Your task to perform on an android device: see tabs open on other devices in the chrome app Image 0: 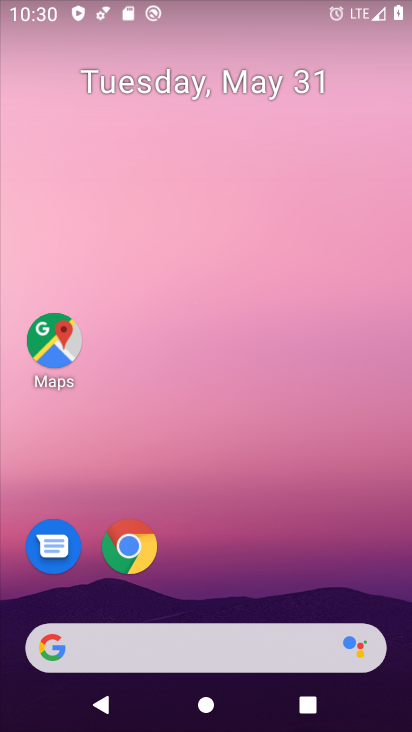
Step 0: drag from (311, 658) to (262, 14)
Your task to perform on an android device: see tabs open on other devices in the chrome app Image 1: 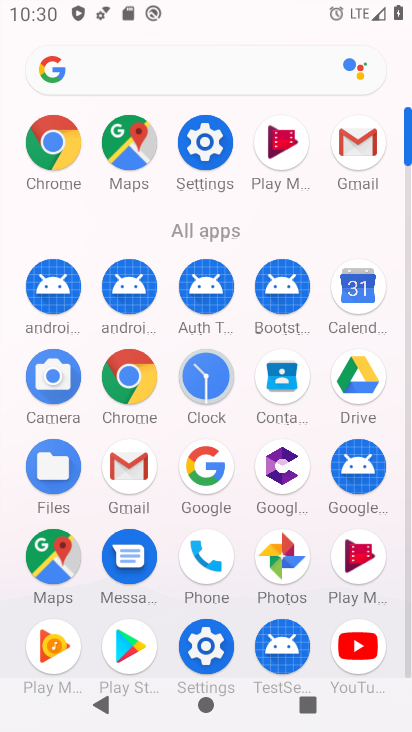
Step 1: click (137, 383)
Your task to perform on an android device: see tabs open on other devices in the chrome app Image 2: 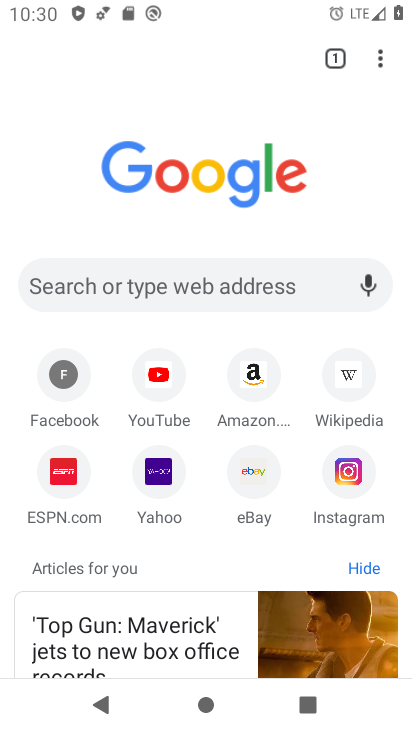
Step 2: task complete